Your task to perform on an android device: toggle sleep mode Image 0: 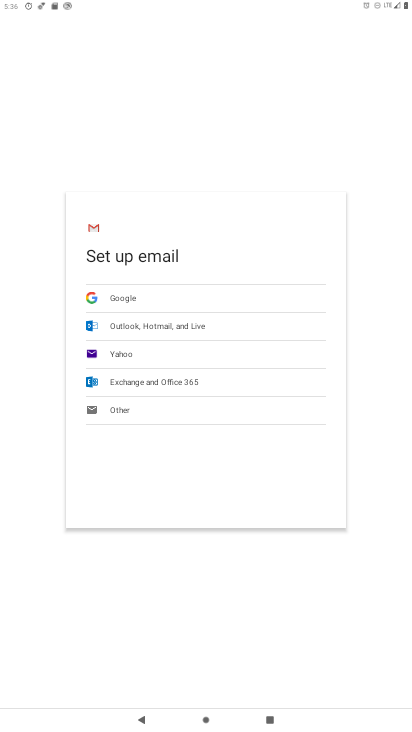
Step 0: press home button
Your task to perform on an android device: toggle sleep mode Image 1: 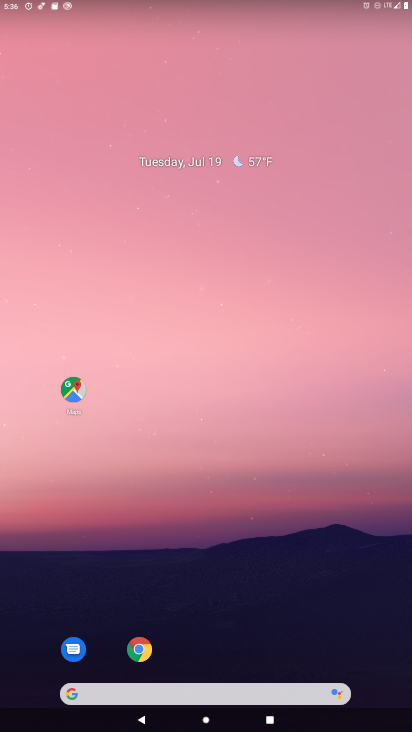
Step 1: task complete